Your task to perform on an android device: Search for lg ultragear on target.com, select the first entry, and add it to the cart. Image 0: 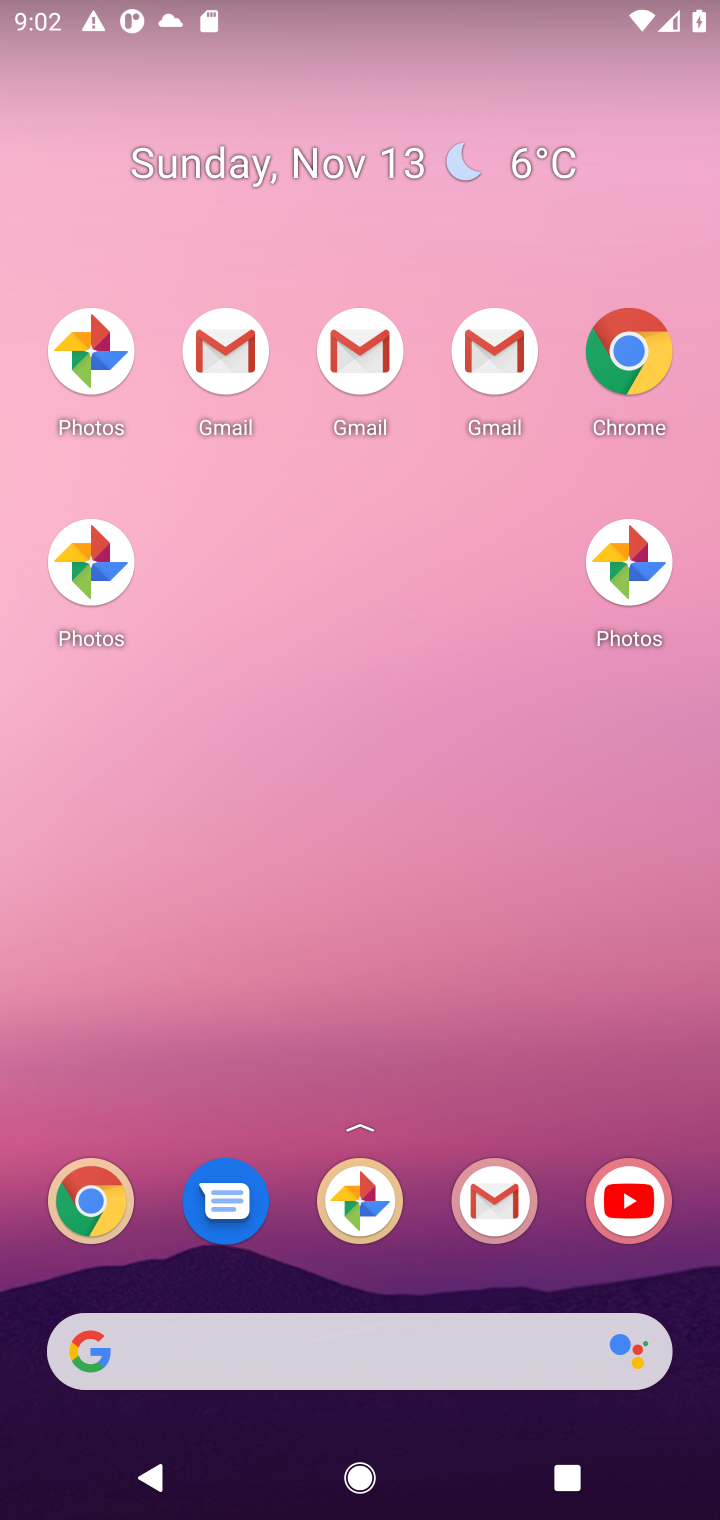
Step 0: drag from (417, 1061) to (523, 166)
Your task to perform on an android device: Search for lg ultragear on target.com, select the first entry, and add it to the cart. Image 1: 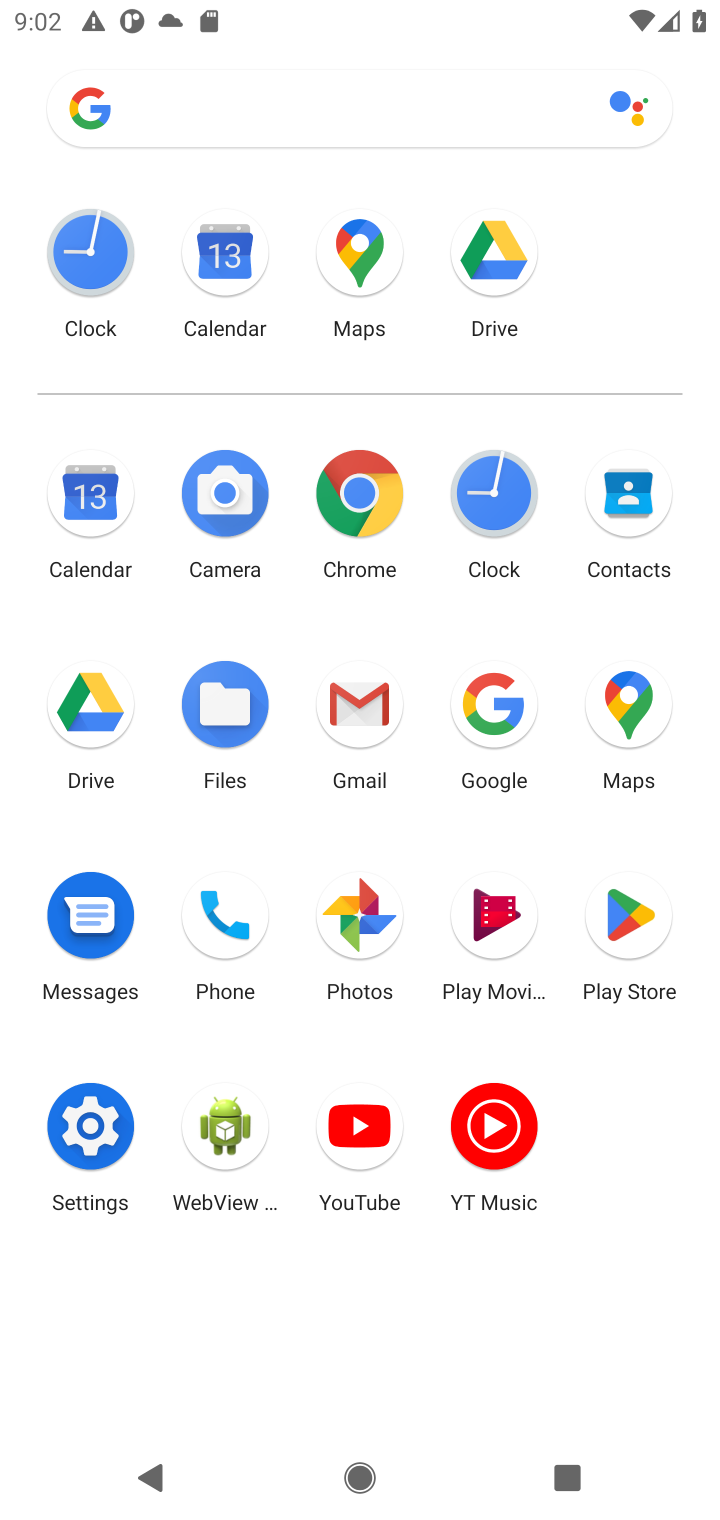
Step 1: click (353, 492)
Your task to perform on an android device: Search for lg ultragear on target.com, select the first entry, and add it to the cart. Image 2: 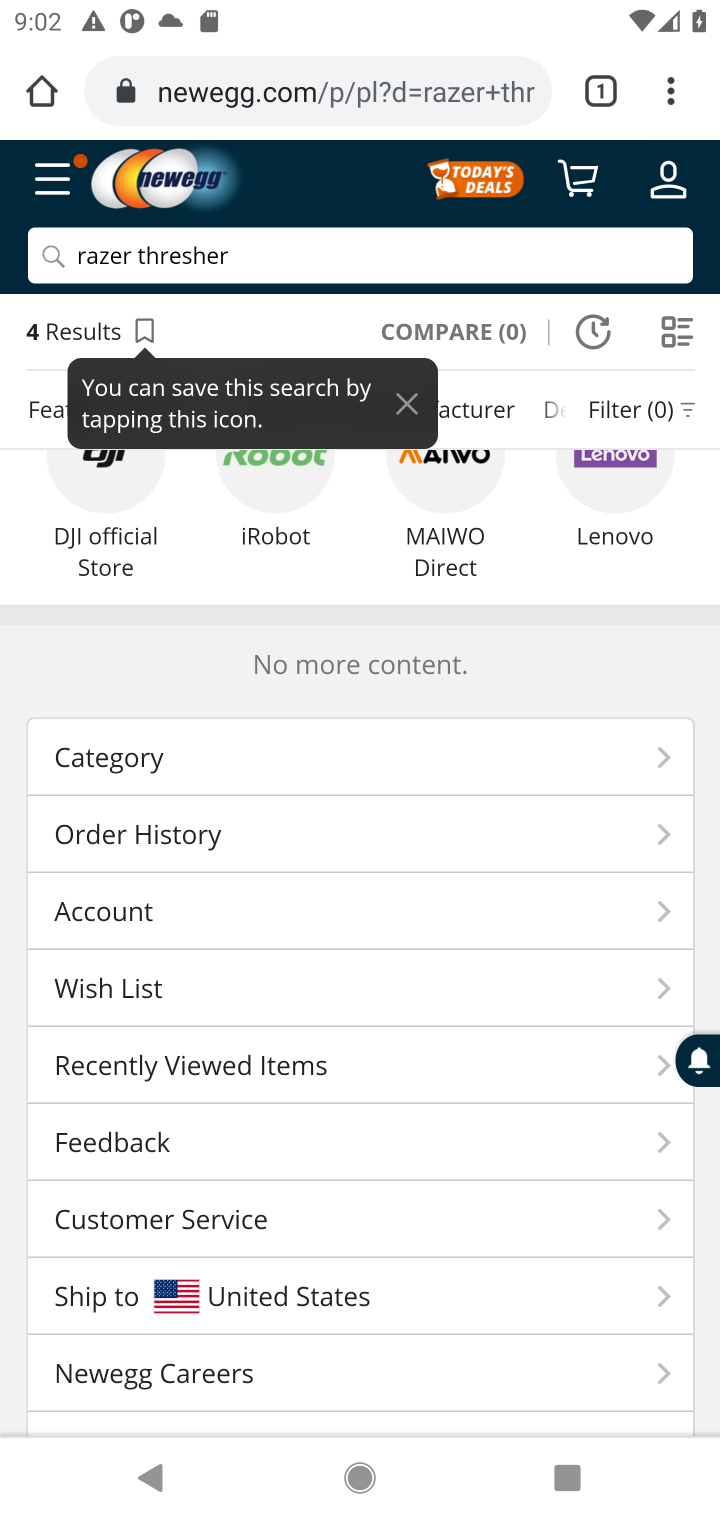
Step 2: click (381, 92)
Your task to perform on an android device: Search for lg ultragear on target.com, select the first entry, and add it to the cart. Image 3: 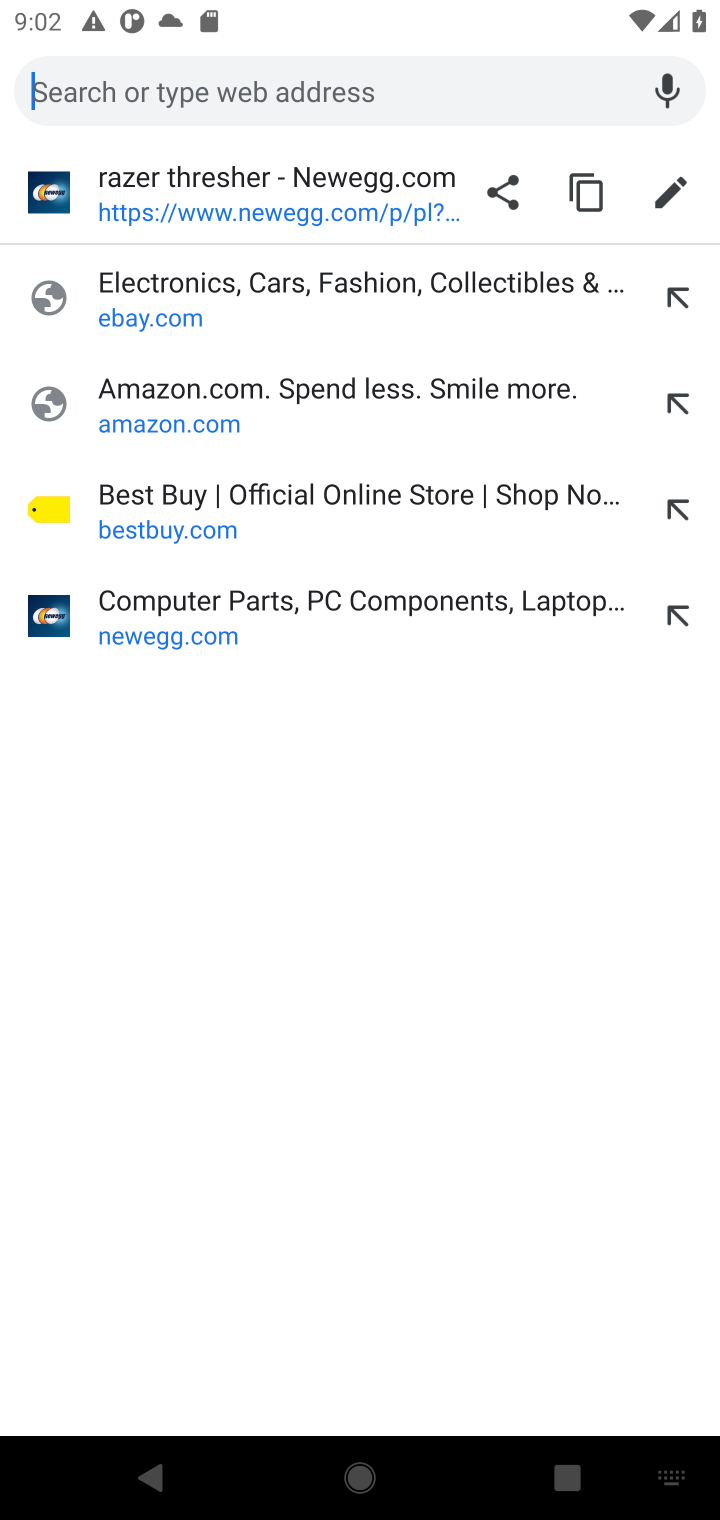
Step 3: type "target.com"
Your task to perform on an android device: Search for lg ultragear on target.com, select the first entry, and add it to the cart. Image 4: 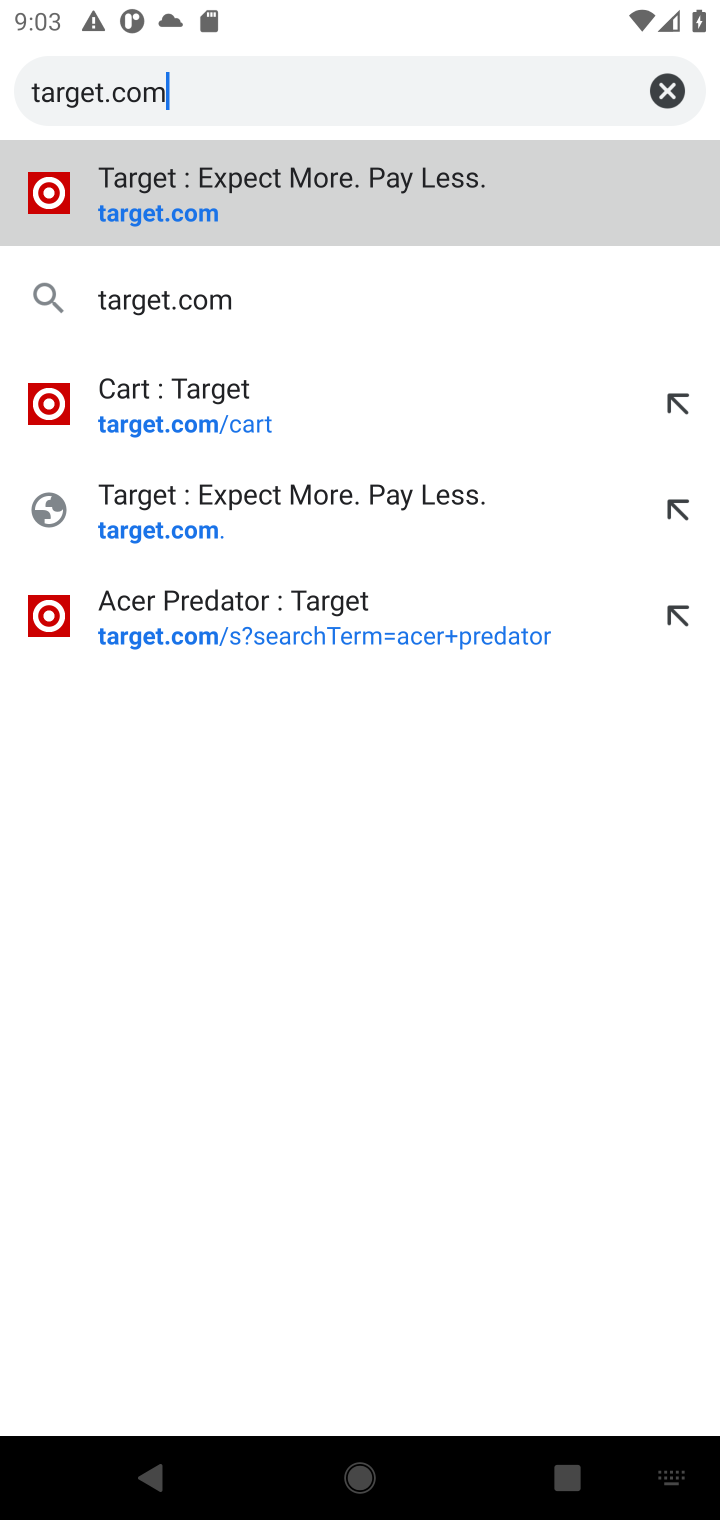
Step 4: press enter
Your task to perform on an android device: Search for lg ultragear on target.com, select the first entry, and add it to the cart. Image 5: 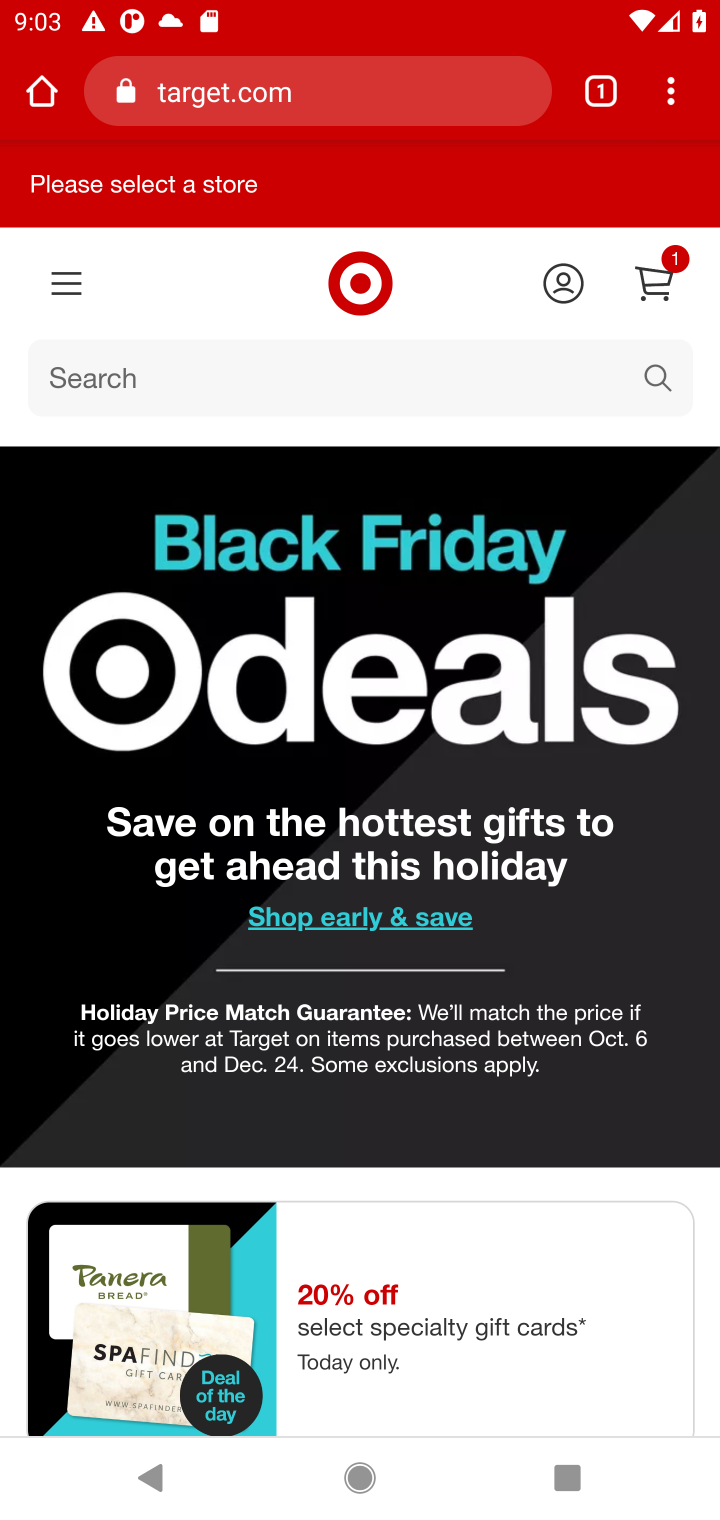
Step 5: click (392, 392)
Your task to perform on an android device: Search for lg ultragear on target.com, select the first entry, and add it to the cart. Image 6: 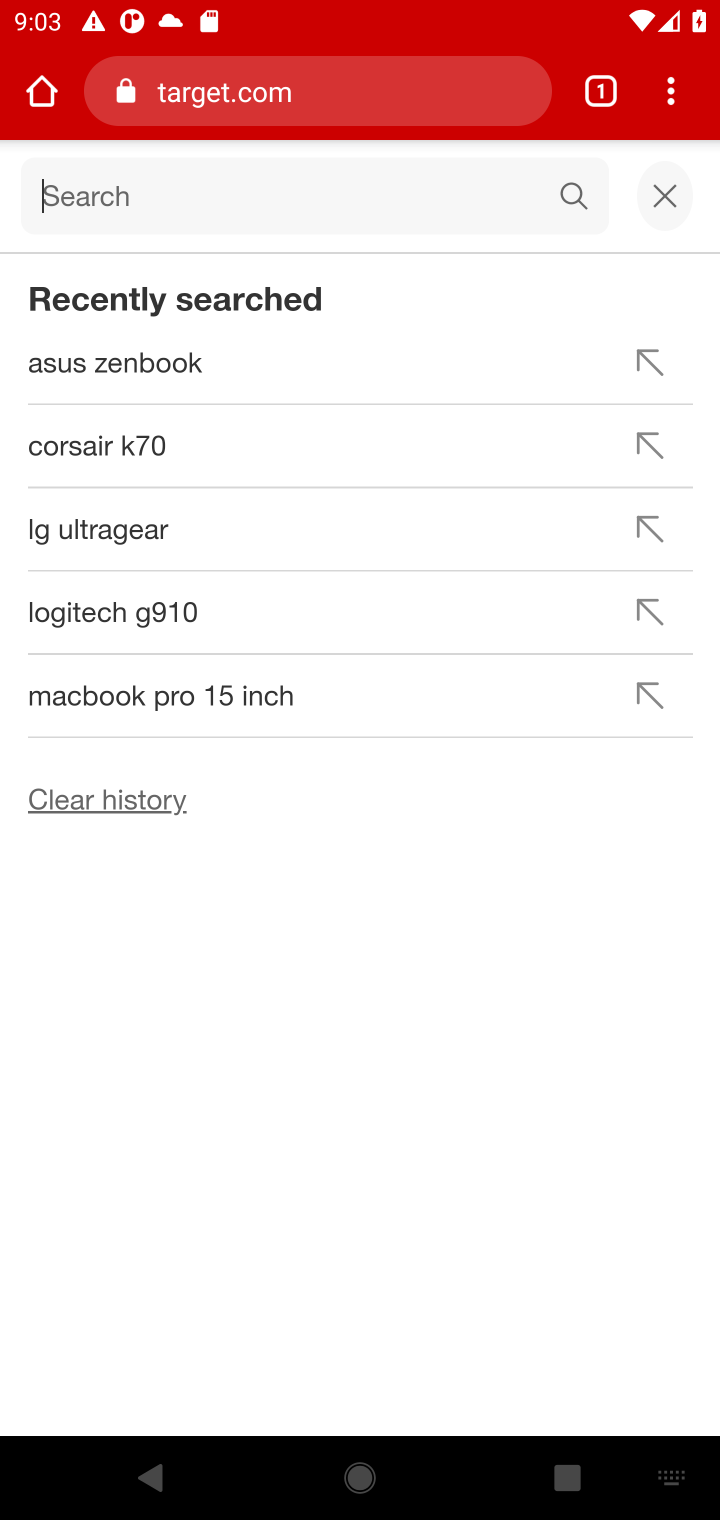
Step 6: type "lg ultragear"
Your task to perform on an android device: Search for lg ultragear on target.com, select the first entry, and add it to the cart. Image 7: 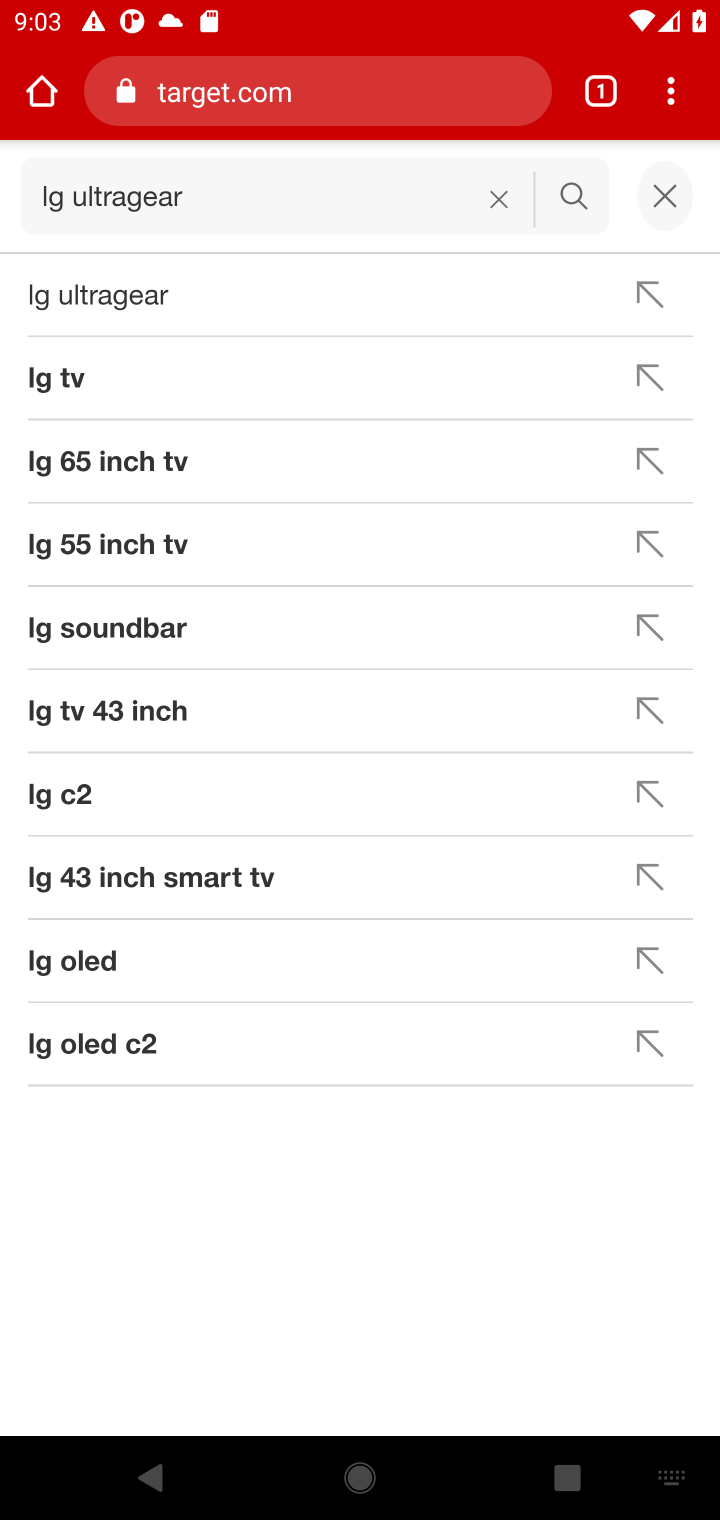
Step 7: press enter
Your task to perform on an android device: Search for lg ultragear on target.com, select the first entry, and add it to the cart. Image 8: 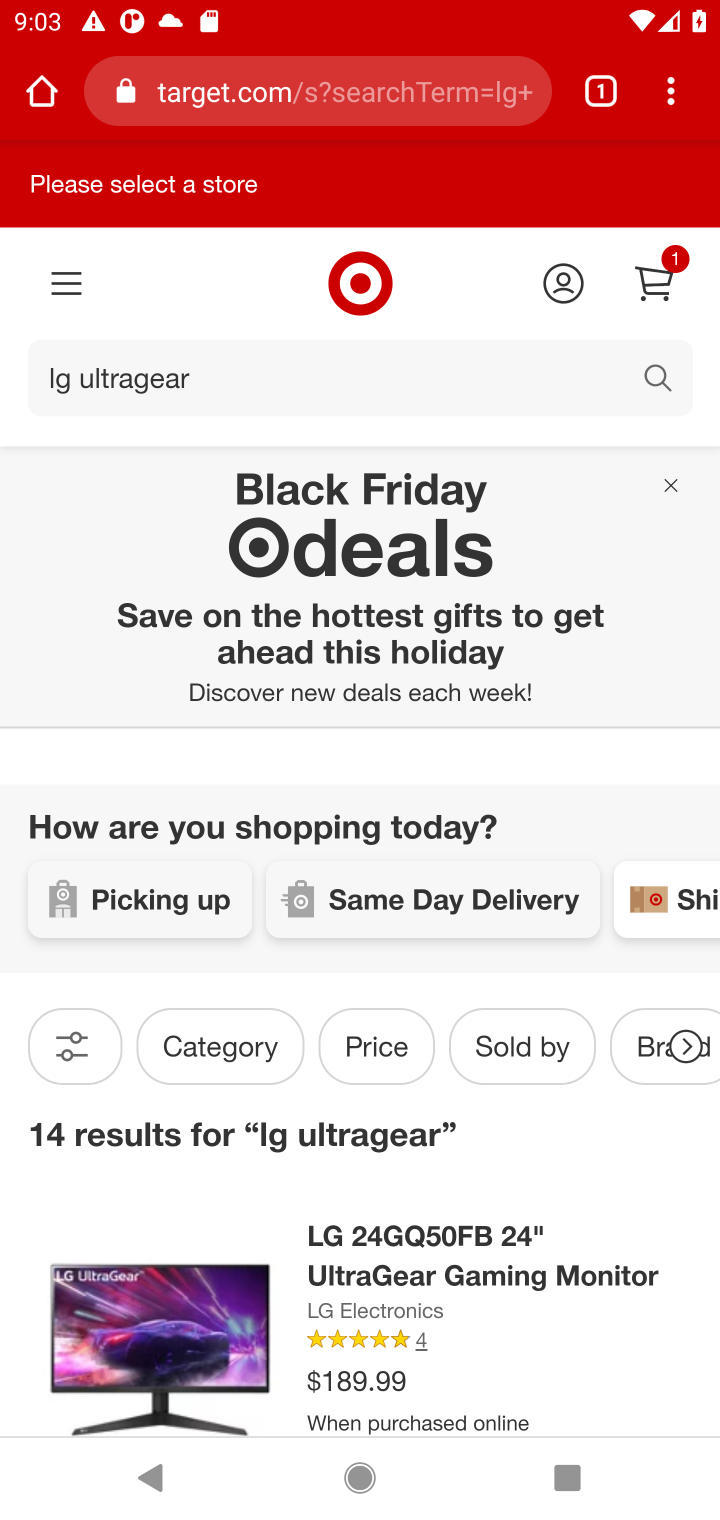
Step 8: drag from (437, 1258) to (483, 589)
Your task to perform on an android device: Search for lg ultragear on target.com, select the first entry, and add it to the cart. Image 9: 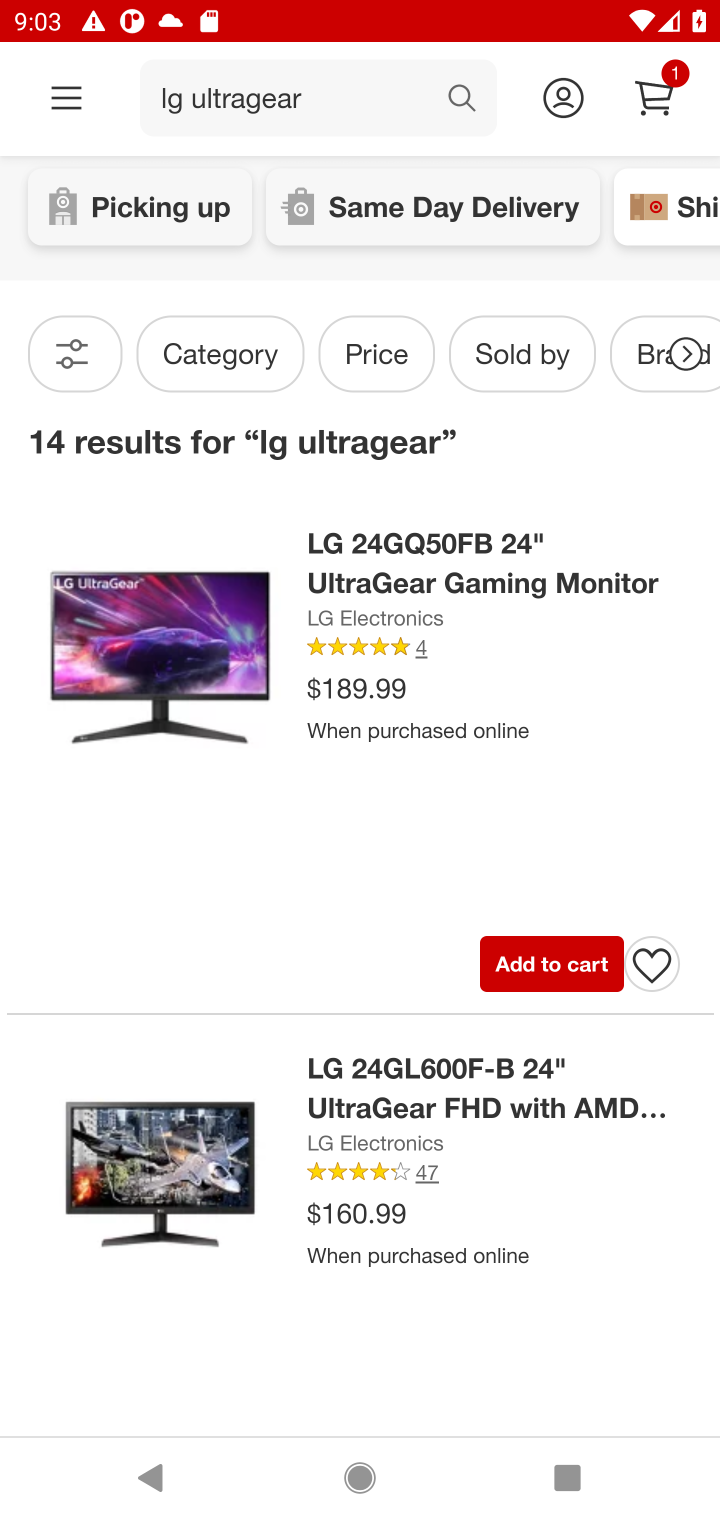
Step 9: click (553, 971)
Your task to perform on an android device: Search for lg ultragear on target.com, select the first entry, and add it to the cart. Image 10: 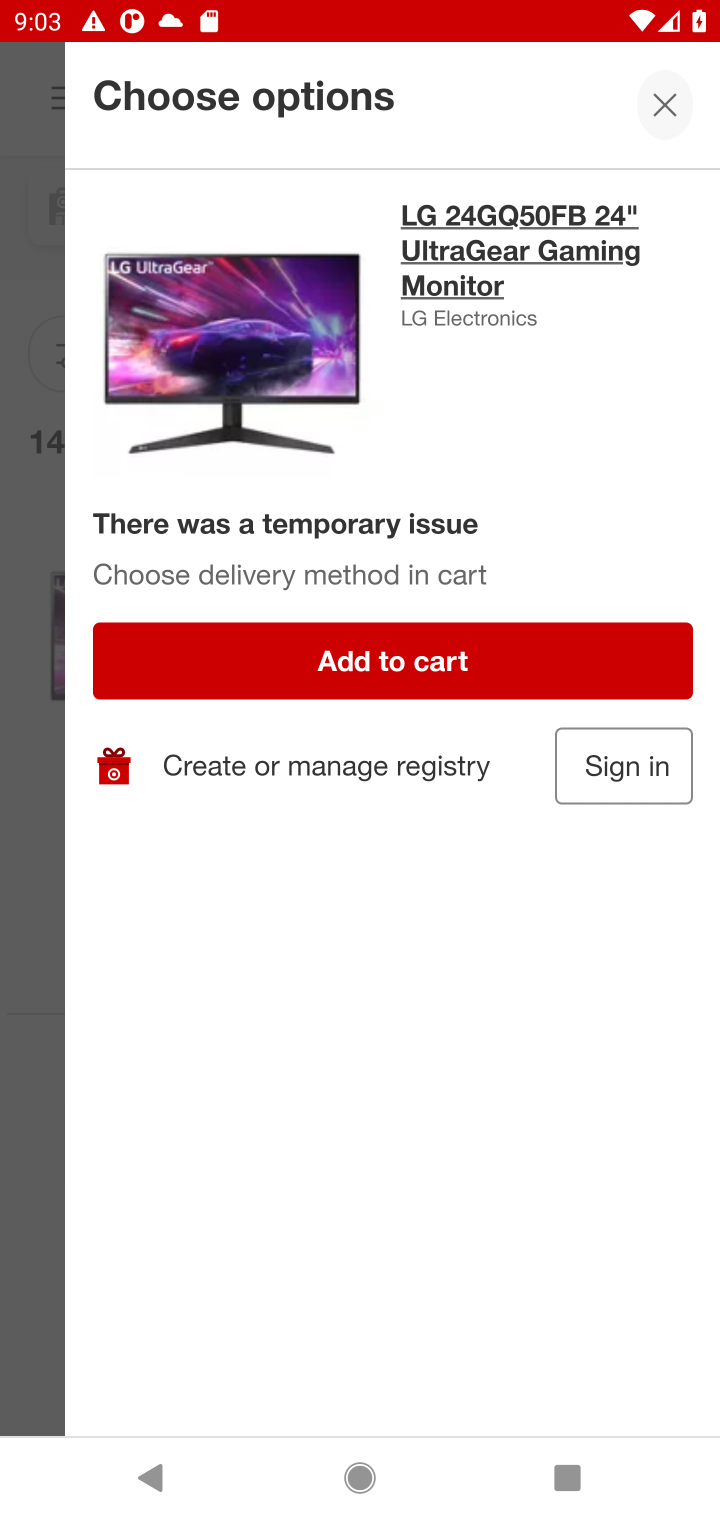
Step 10: click (425, 651)
Your task to perform on an android device: Search for lg ultragear on target.com, select the first entry, and add it to the cart. Image 11: 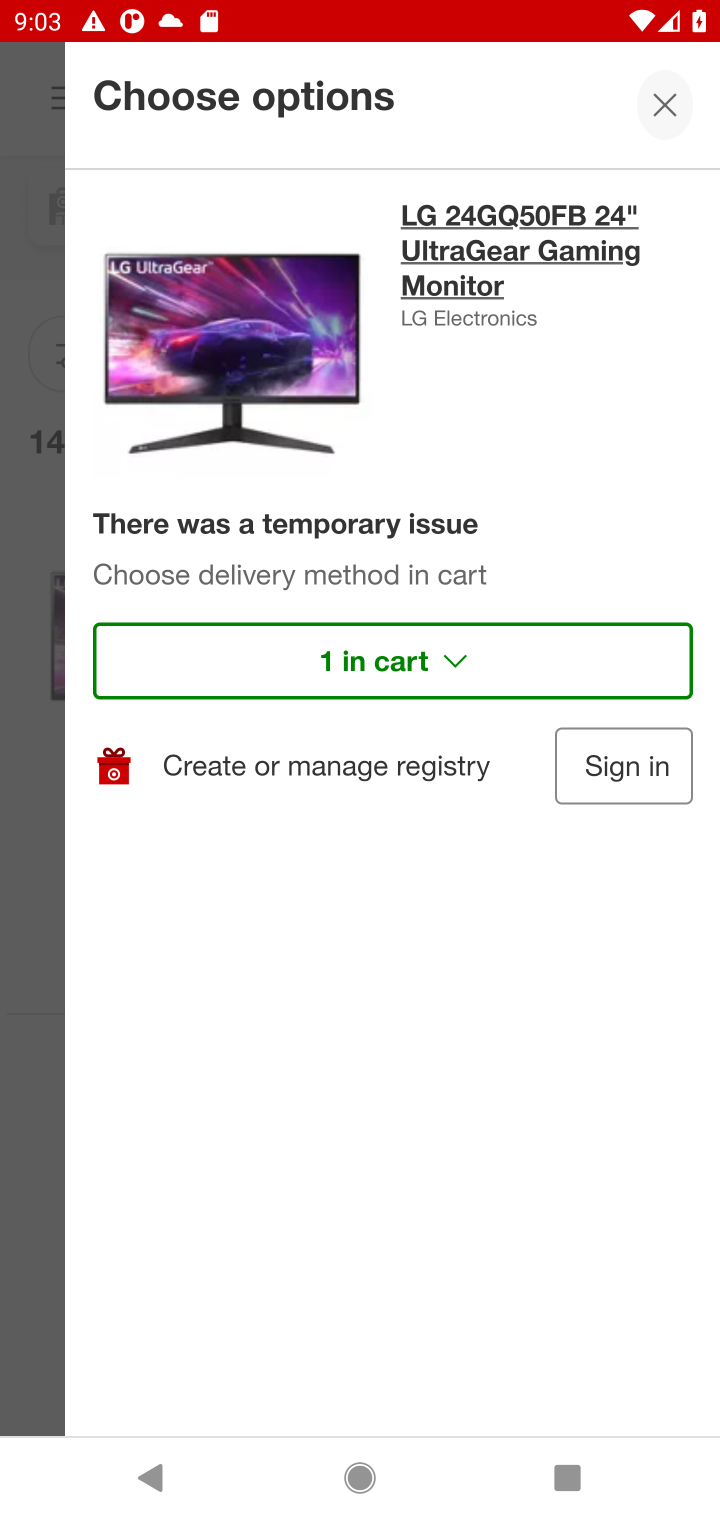
Step 11: task complete